Your task to perform on an android device: Open Chrome and go to settings Image 0: 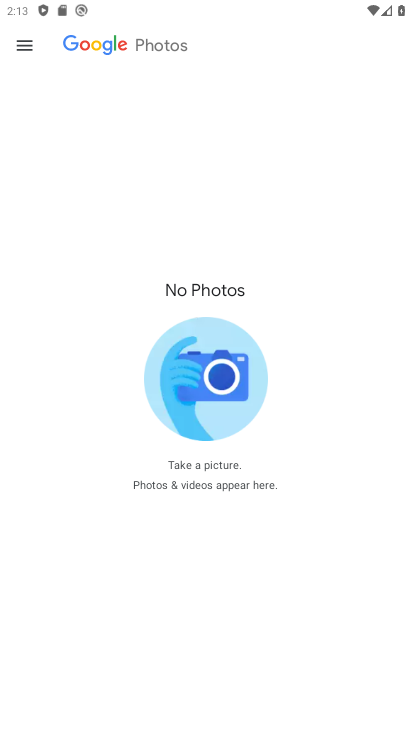
Step 0: press home button
Your task to perform on an android device: Open Chrome and go to settings Image 1: 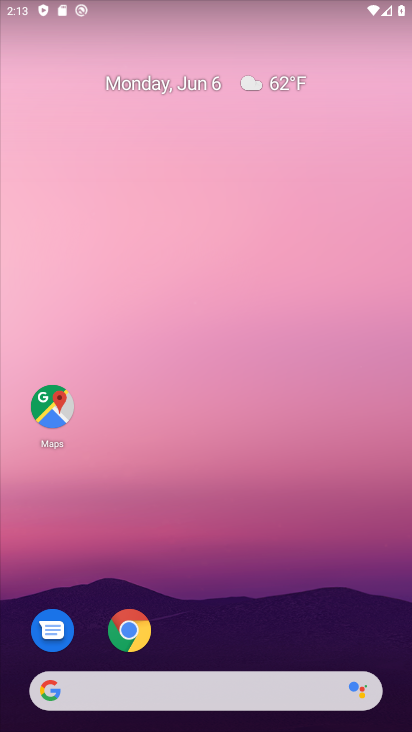
Step 1: drag from (186, 648) to (203, 97)
Your task to perform on an android device: Open Chrome and go to settings Image 2: 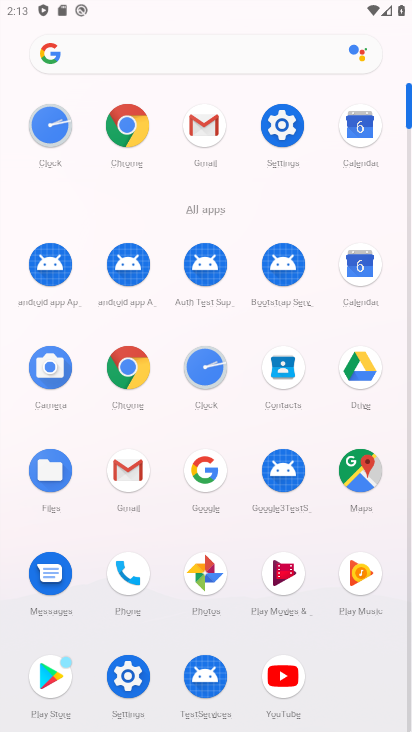
Step 2: click (133, 360)
Your task to perform on an android device: Open Chrome and go to settings Image 3: 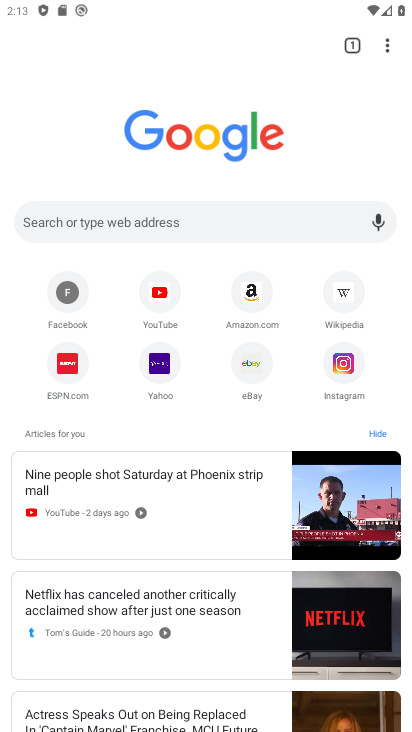
Step 3: task complete